Your task to perform on an android device: Open settings Image 0: 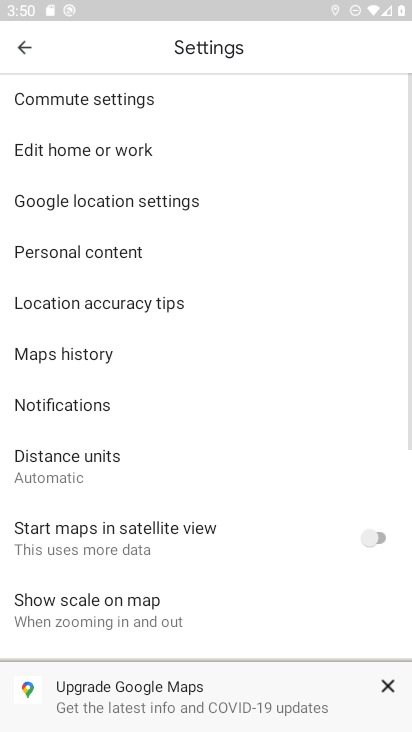
Step 0: press home button
Your task to perform on an android device: Open settings Image 1: 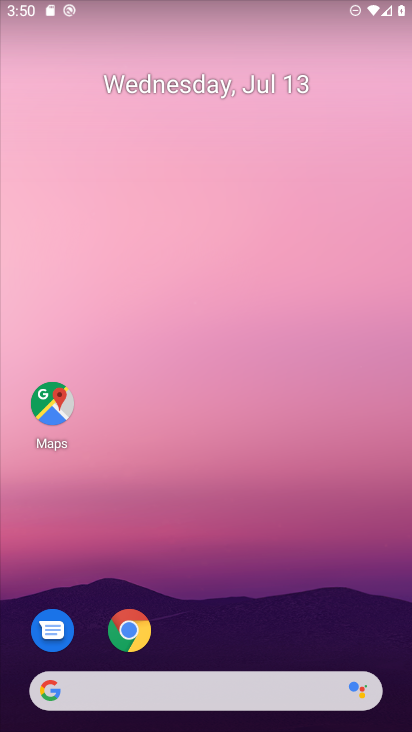
Step 1: drag from (208, 578) to (187, 109)
Your task to perform on an android device: Open settings Image 2: 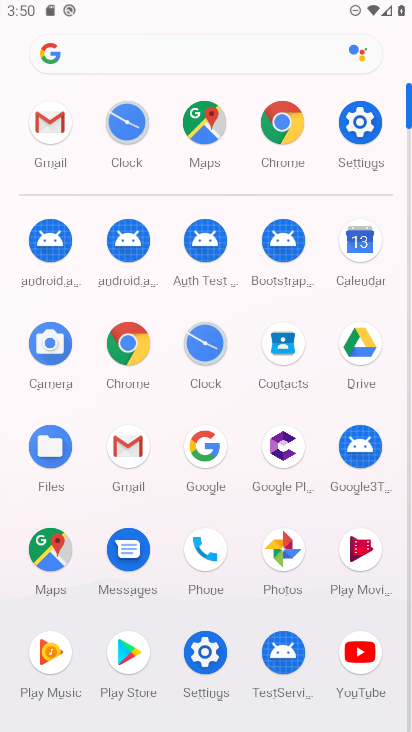
Step 2: click (353, 137)
Your task to perform on an android device: Open settings Image 3: 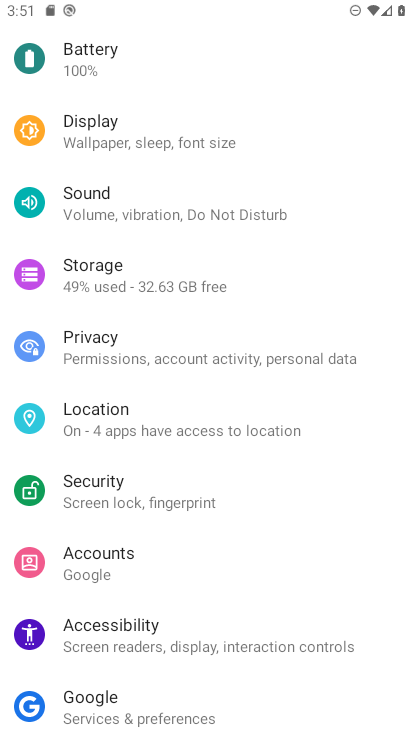
Step 3: task complete